Your task to perform on an android device: Go to Amazon Image 0: 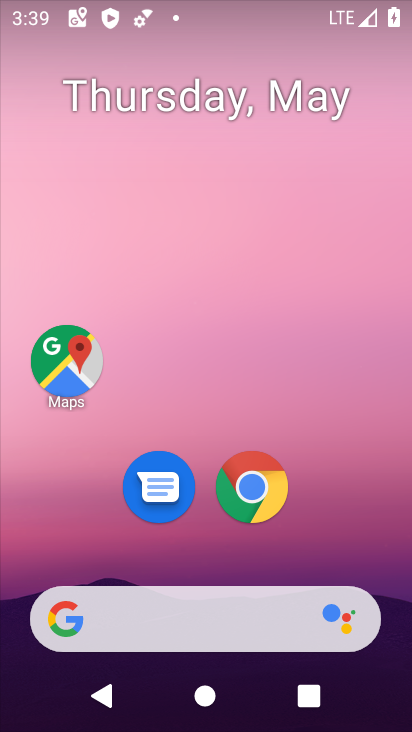
Step 0: click (250, 507)
Your task to perform on an android device: Go to Amazon Image 1: 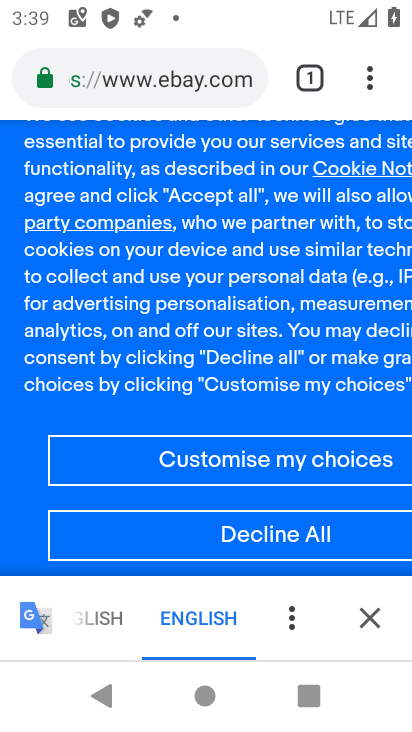
Step 1: click (169, 84)
Your task to perform on an android device: Go to Amazon Image 2: 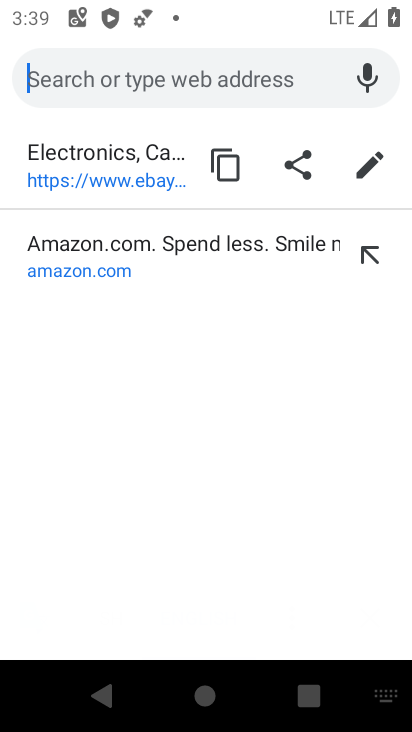
Step 2: click (271, 268)
Your task to perform on an android device: Go to Amazon Image 3: 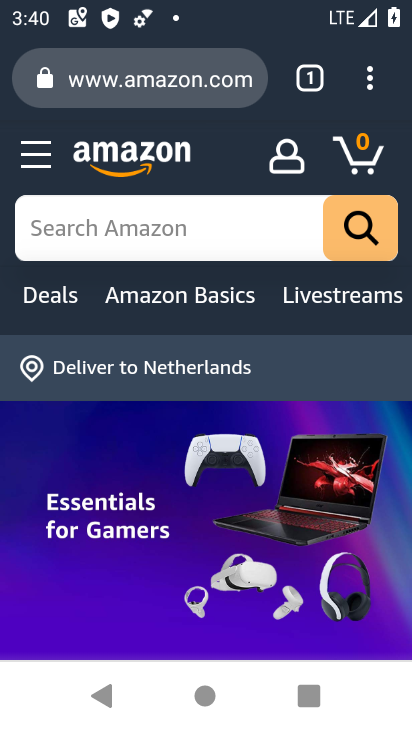
Step 3: task complete